Your task to perform on an android device: open device folders in google photos Image 0: 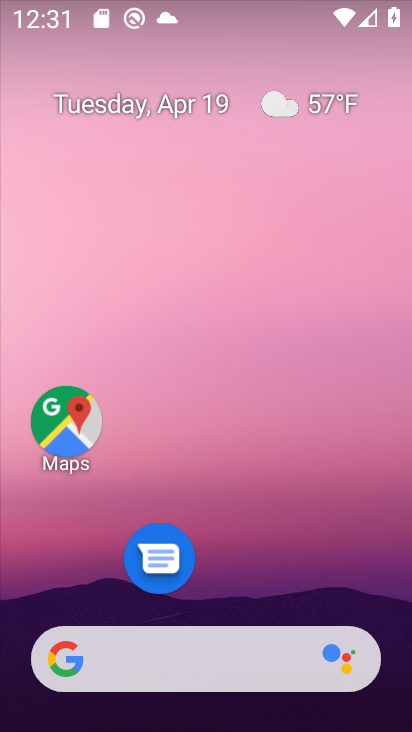
Step 0: drag from (280, 580) to (238, 141)
Your task to perform on an android device: open device folders in google photos Image 1: 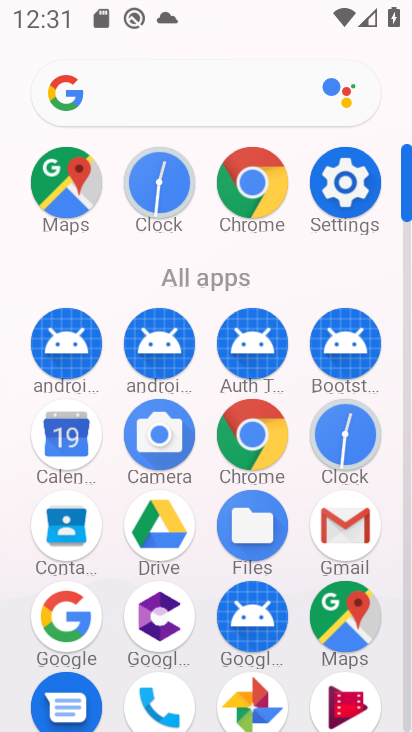
Step 1: click (236, 699)
Your task to perform on an android device: open device folders in google photos Image 2: 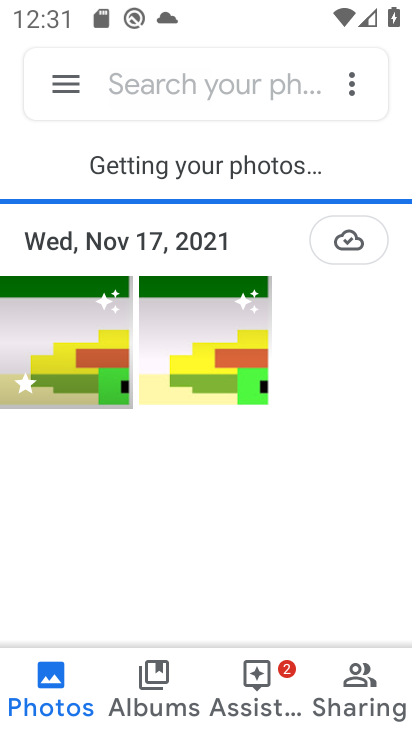
Step 2: click (73, 83)
Your task to perform on an android device: open device folders in google photos Image 3: 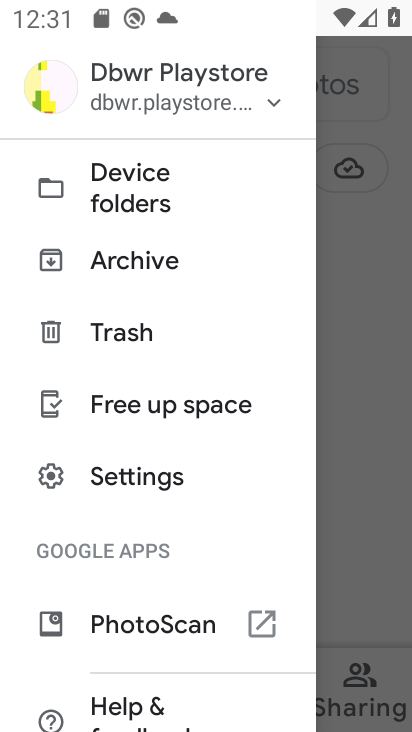
Step 3: click (116, 191)
Your task to perform on an android device: open device folders in google photos Image 4: 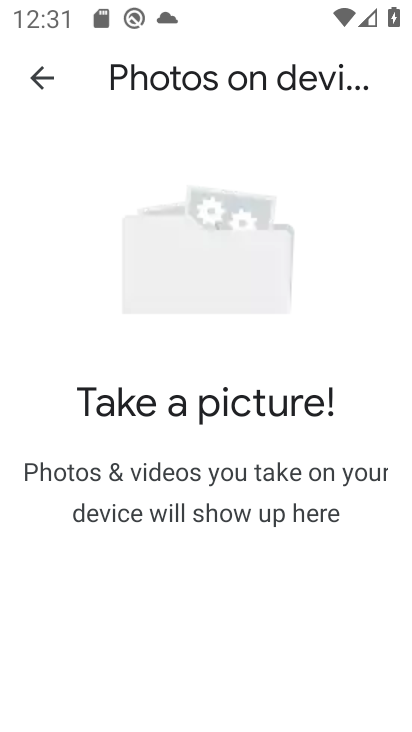
Step 4: task complete